Your task to perform on an android device: see sites visited before in the chrome app Image 0: 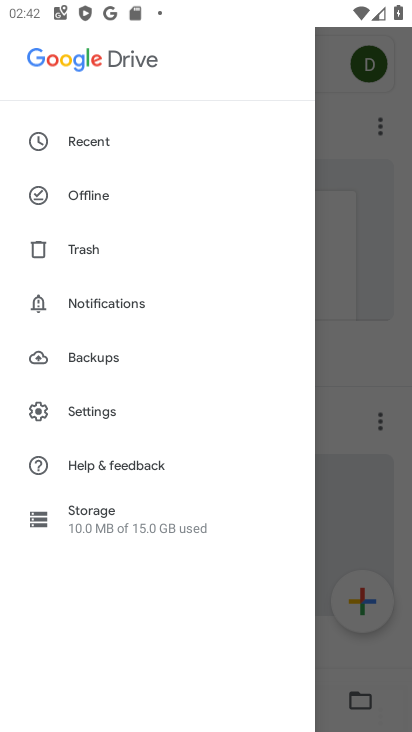
Step 0: press home button
Your task to perform on an android device: see sites visited before in the chrome app Image 1: 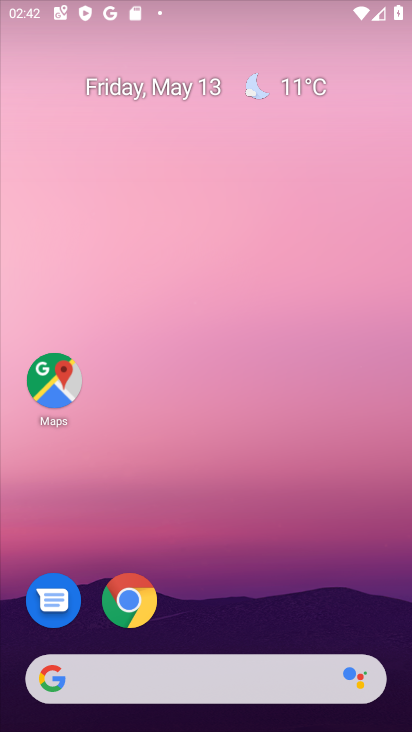
Step 1: drag from (209, 570) to (251, 124)
Your task to perform on an android device: see sites visited before in the chrome app Image 2: 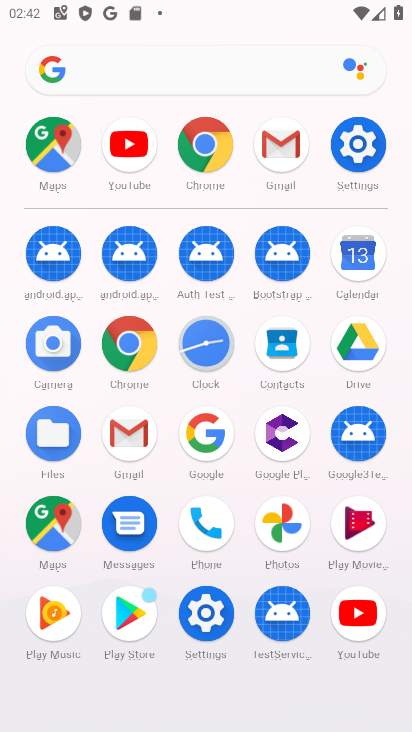
Step 2: click (127, 335)
Your task to perform on an android device: see sites visited before in the chrome app Image 3: 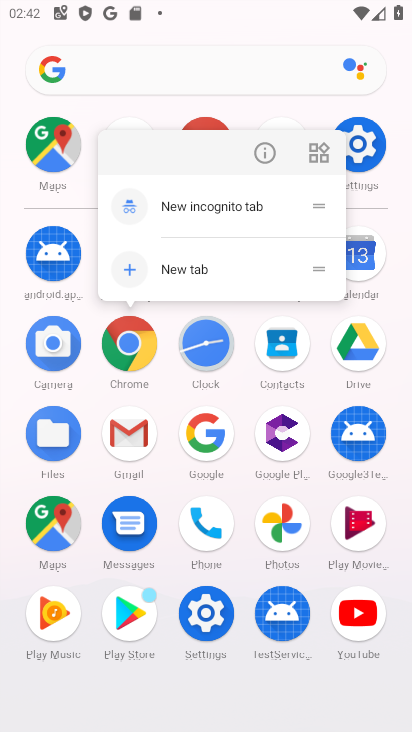
Step 3: click (275, 151)
Your task to perform on an android device: see sites visited before in the chrome app Image 4: 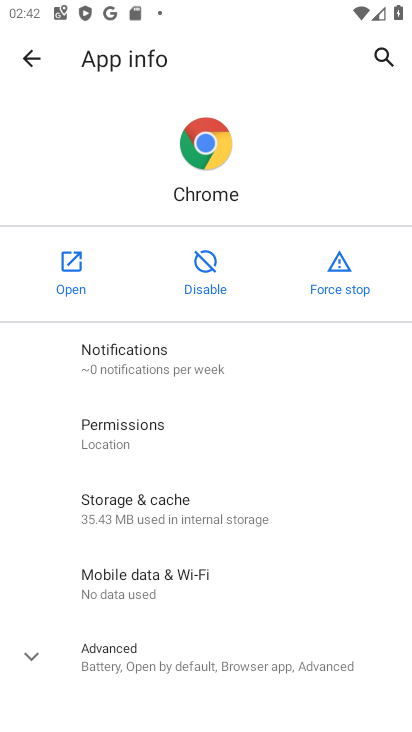
Step 4: click (74, 254)
Your task to perform on an android device: see sites visited before in the chrome app Image 5: 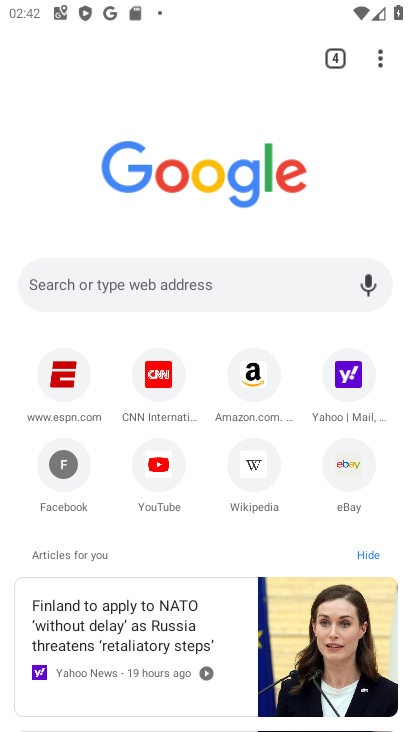
Step 5: drag from (380, 67) to (203, 213)
Your task to perform on an android device: see sites visited before in the chrome app Image 6: 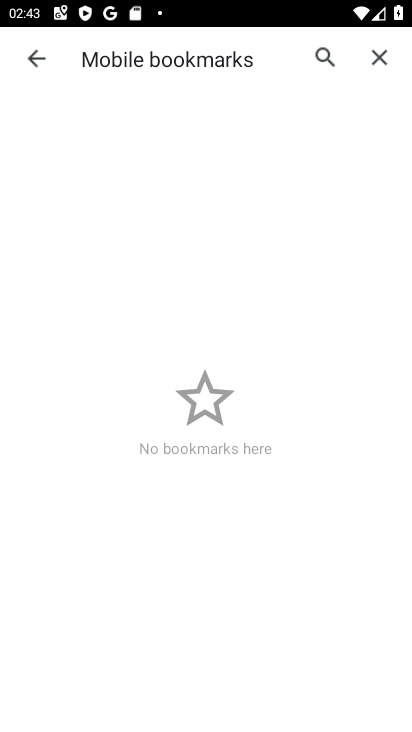
Step 6: drag from (246, 462) to (268, 275)
Your task to perform on an android device: see sites visited before in the chrome app Image 7: 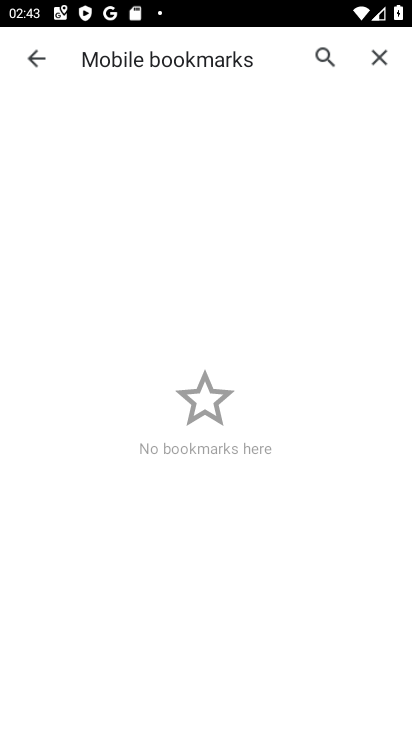
Step 7: click (276, 216)
Your task to perform on an android device: see sites visited before in the chrome app Image 8: 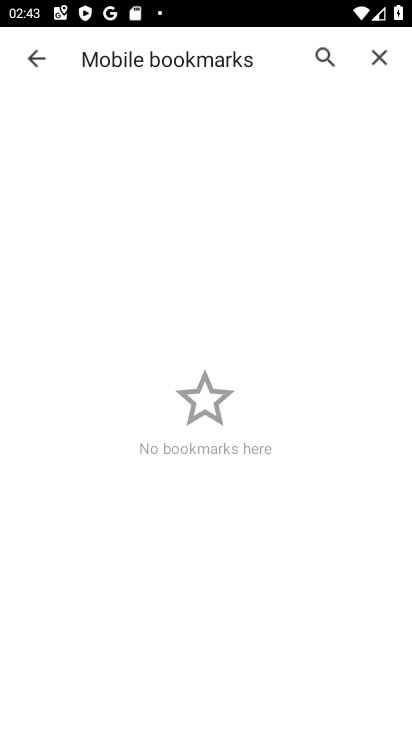
Step 8: task complete